Your task to perform on an android device: open sync settings in chrome Image 0: 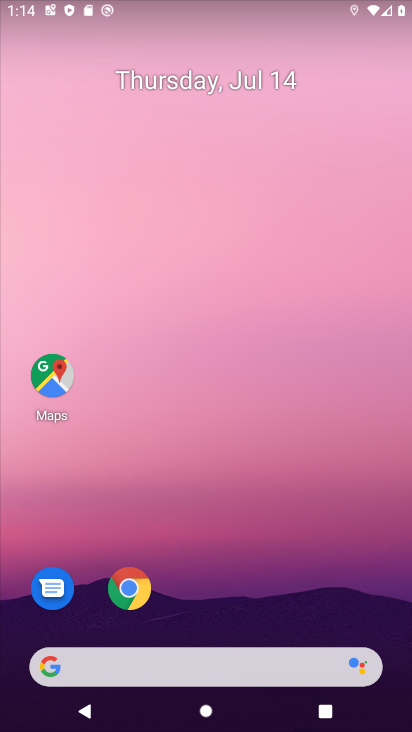
Step 0: drag from (236, 695) to (153, 62)
Your task to perform on an android device: open sync settings in chrome Image 1: 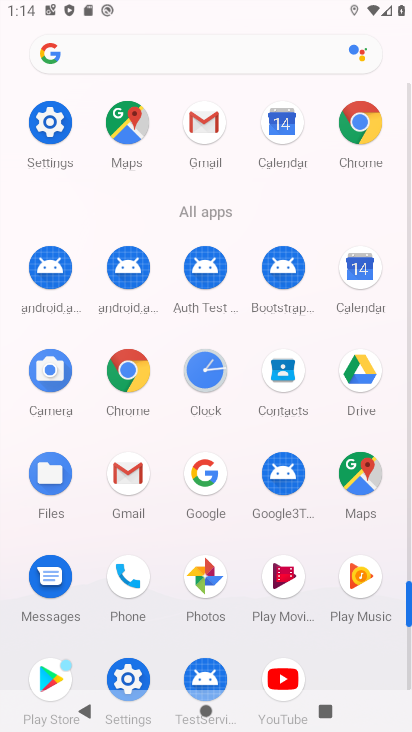
Step 1: click (356, 128)
Your task to perform on an android device: open sync settings in chrome Image 2: 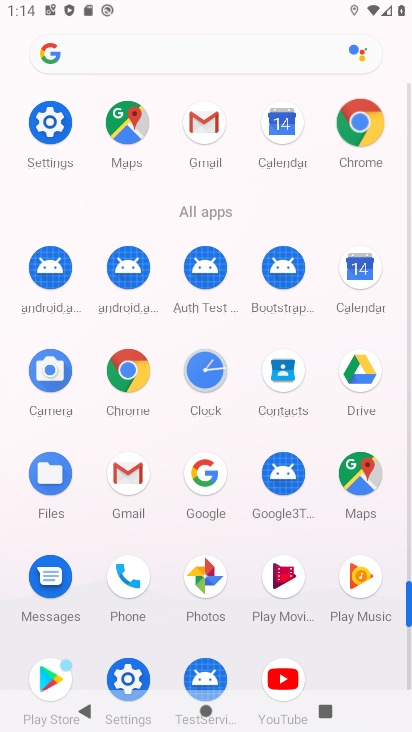
Step 2: click (356, 126)
Your task to perform on an android device: open sync settings in chrome Image 3: 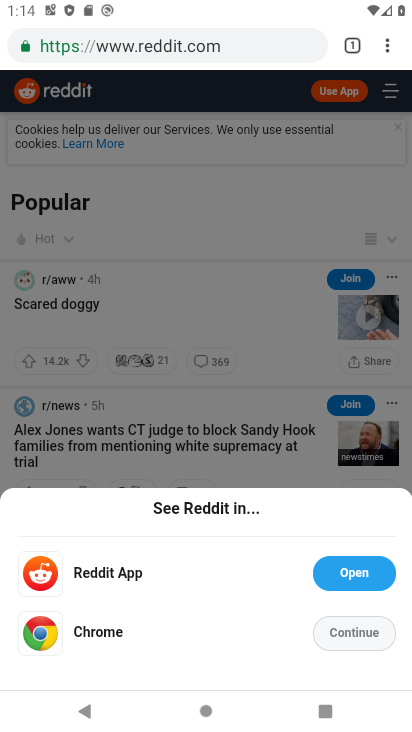
Step 3: click (228, 260)
Your task to perform on an android device: open sync settings in chrome Image 4: 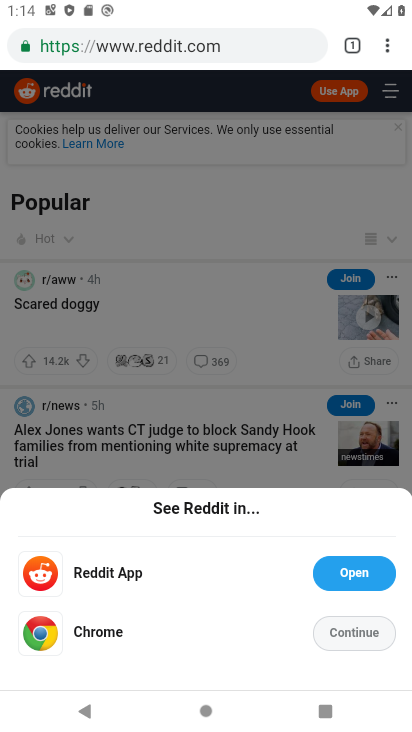
Step 4: click (236, 256)
Your task to perform on an android device: open sync settings in chrome Image 5: 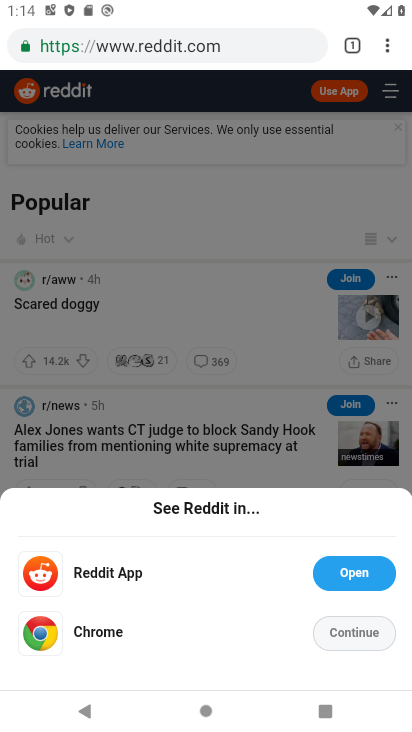
Step 5: press back button
Your task to perform on an android device: open sync settings in chrome Image 6: 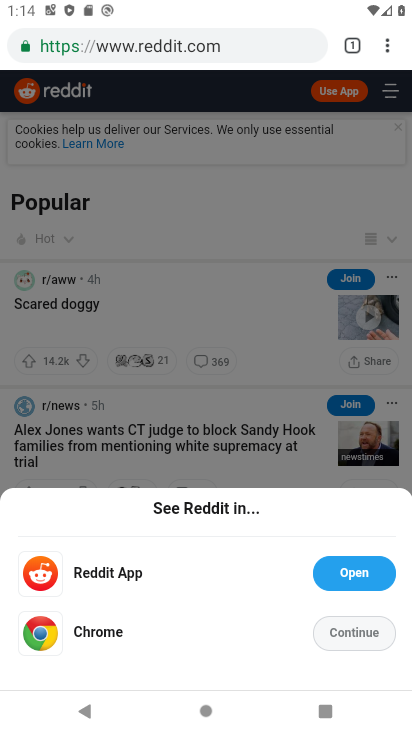
Step 6: press back button
Your task to perform on an android device: open sync settings in chrome Image 7: 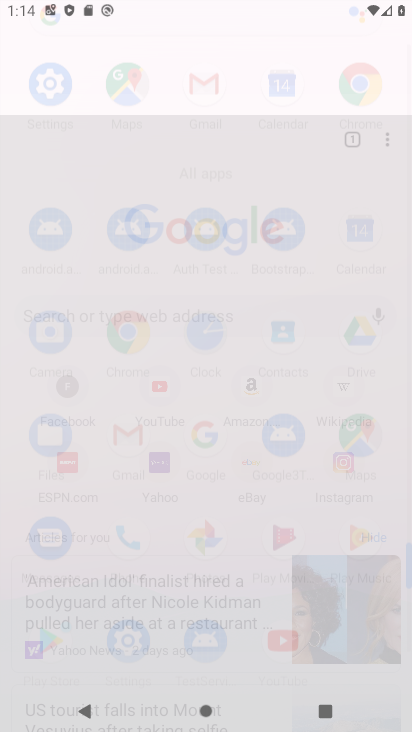
Step 7: press home button
Your task to perform on an android device: open sync settings in chrome Image 8: 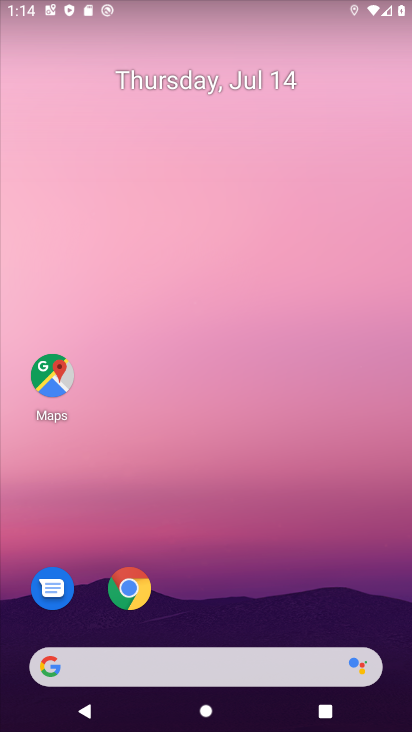
Step 8: drag from (219, 553) to (60, 71)
Your task to perform on an android device: open sync settings in chrome Image 9: 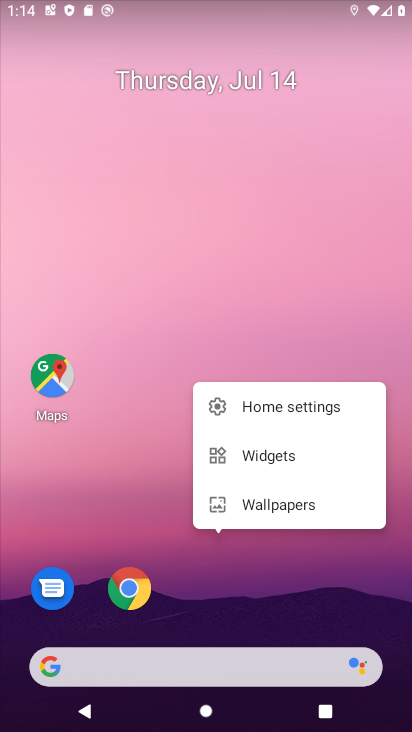
Step 9: drag from (244, 596) to (17, 85)
Your task to perform on an android device: open sync settings in chrome Image 10: 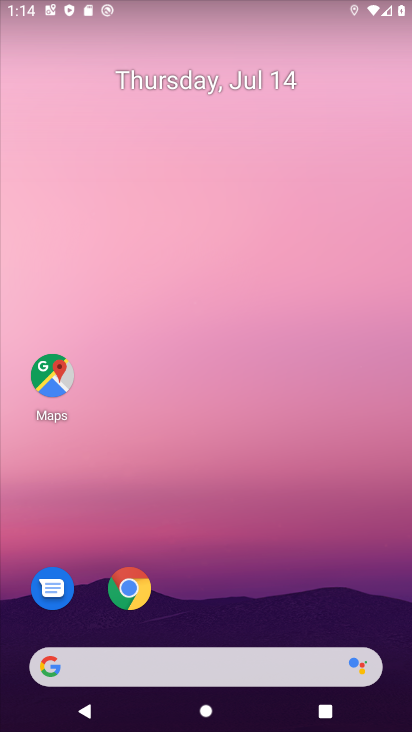
Step 10: drag from (141, 505) to (45, 5)
Your task to perform on an android device: open sync settings in chrome Image 11: 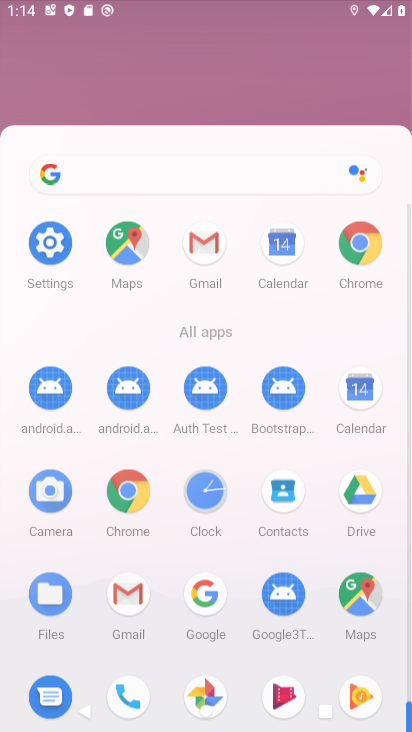
Step 11: drag from (254, 539) to (208, 53)
Your task to perform on an android device: open sync settings in chrome Image 12: 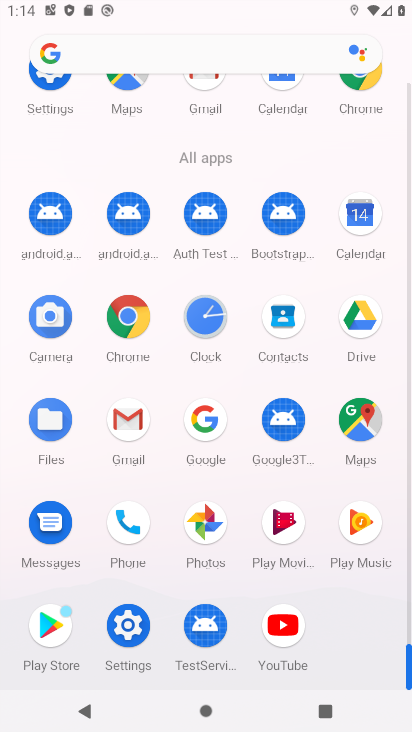
Step 12: click (128, 630)
Your task to perform on an android device: open sync settings in chrome Image 13: 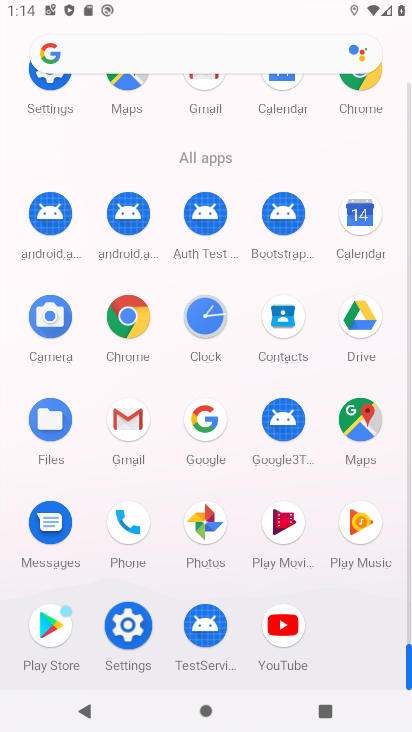
Step 13: click (128, 629)
Your task to perform on an android device: open sync settings in chrome Image 14: 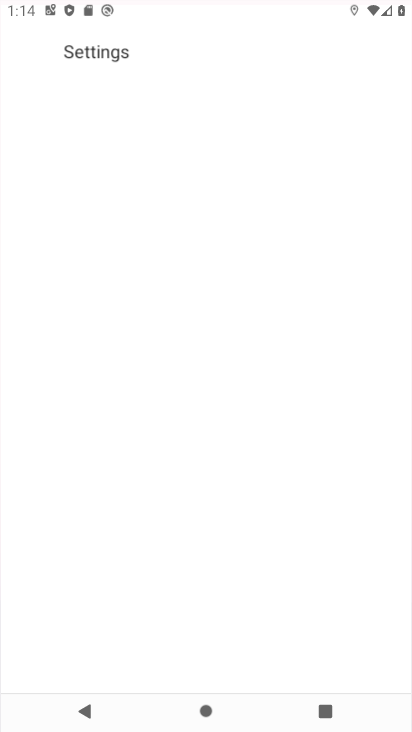
Step 14: click (127, 627)
Your task to perform on an android device: open sync settings in chrome Image 15: 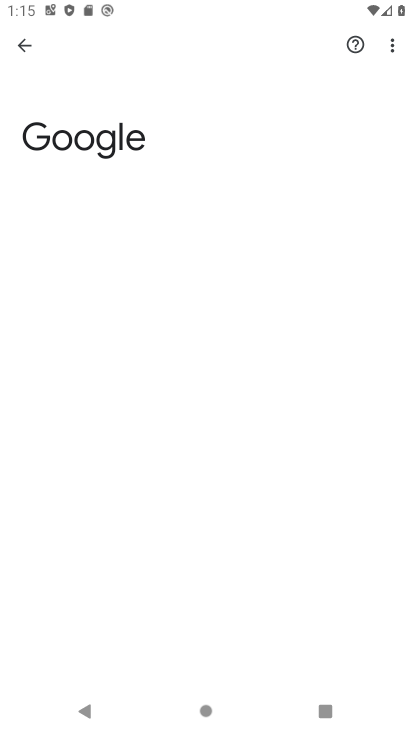
Step 15: press back button
Your task to perform on an android device: open sync settings in chrome Image 16: 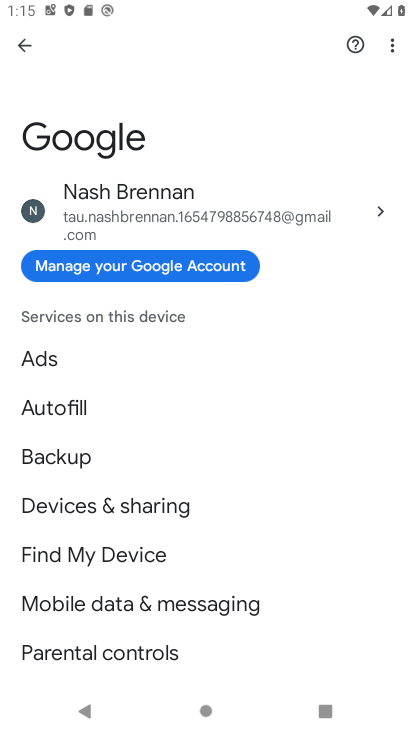
Step 16: press home button
Your task to perform on an android device: open sync settings in chrome Image 17: 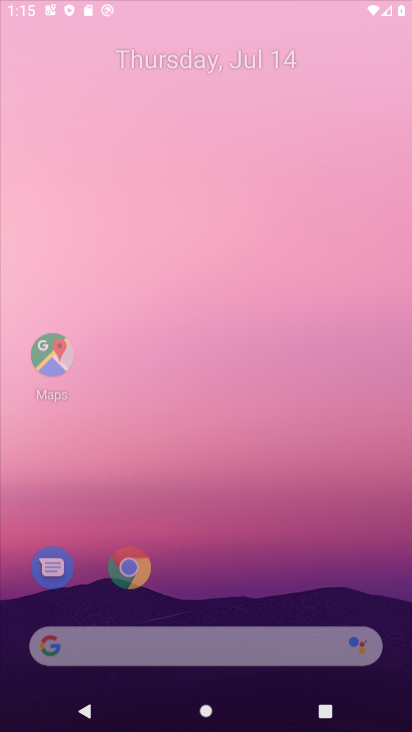
Step 17: click (19, 52)
Your task to perform on an android device: open sync settings in chrome Image 18: 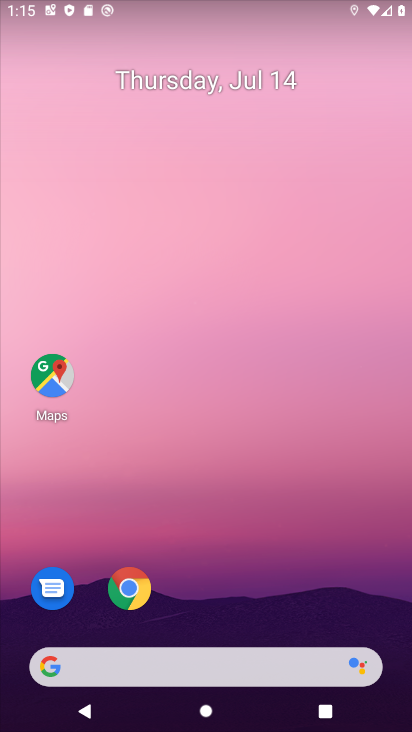
Step 18: drag from (241, 640) to (31, 0)
Your task to perform on an android device: open sync settings in chrome Image 19: 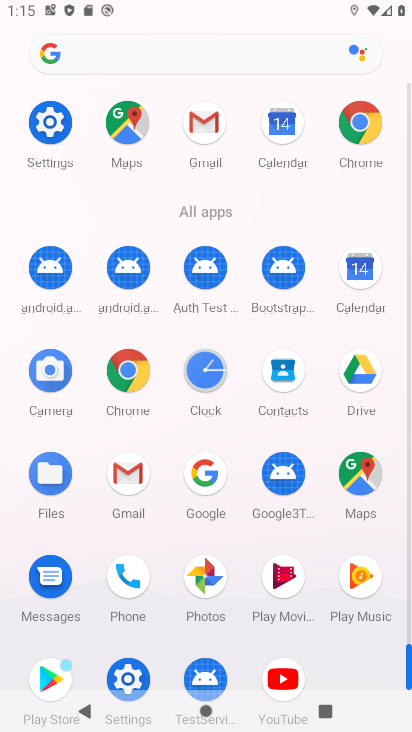
Step 19: click (50, 122)
Your task to perform on an android device: open sync settings in chrome Image 20: 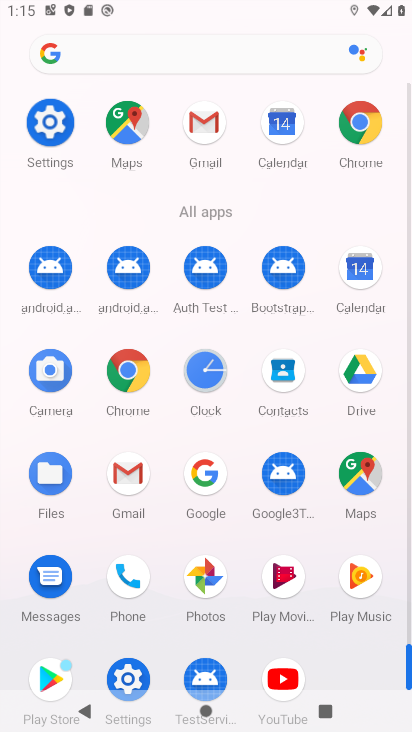
Step 20: click (50, 122)
Your task to perform on an android device: open sync settings in chrome Image 21: 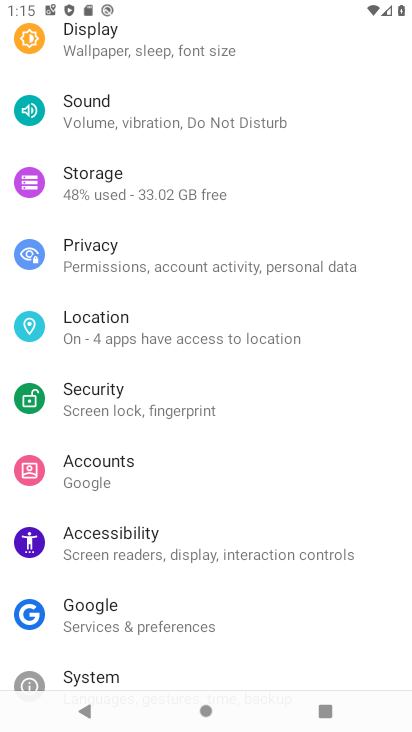
Step 21: press back button
Your task to perform on an android device: open sync settings in chrome Image 22: 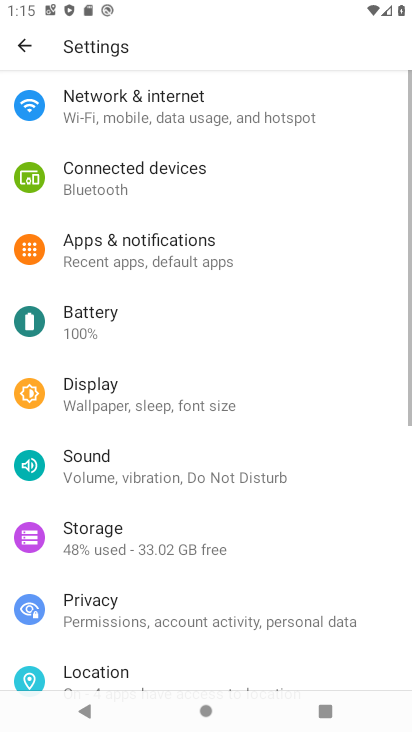
Step 22: press home button
Your task to perform on an android device: open sync settings in chrome Image 23: 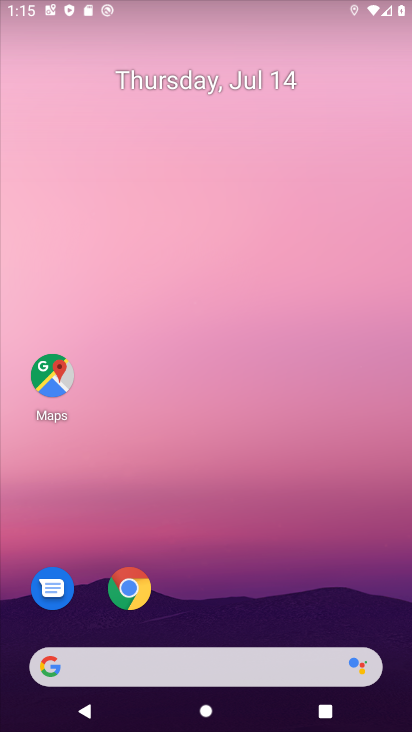
Step 23: drag from (246, 692) to (110, 169)
Your task to perform on an android device: open sync settings in chrome Image 24: 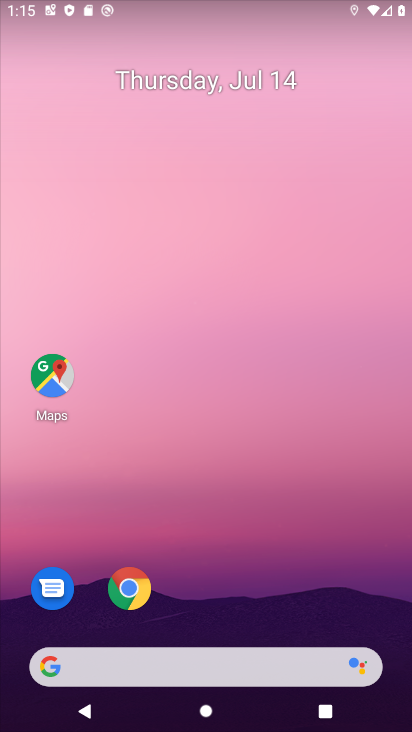
Step 24: drag from (261, 657) to (124, 142)
Your task to perform on an android device: open sync settings in chrome Image 25: 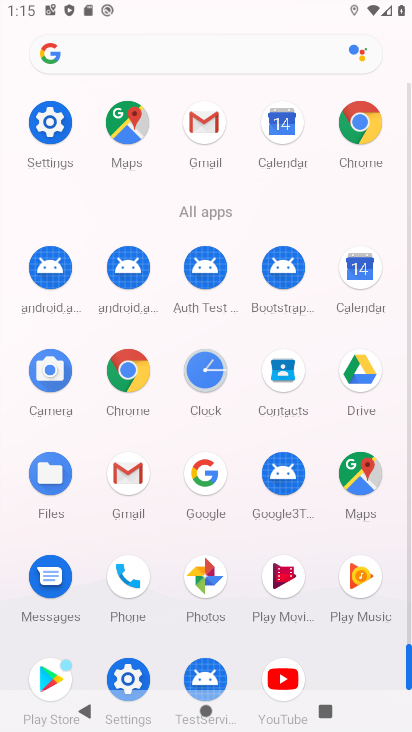
Step 25: click (352, 133)
Your task to perform on an android device: open sync settings in chrome Image 26: 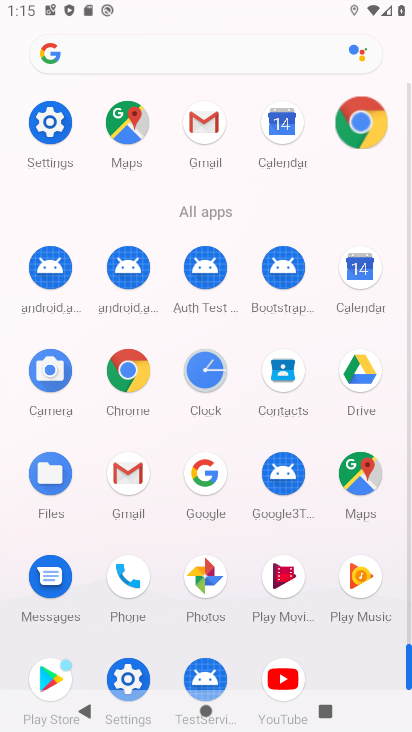
Step 26: click (353, 133)
Your task to perform on an android device: open sync settings in chrome Image 27: 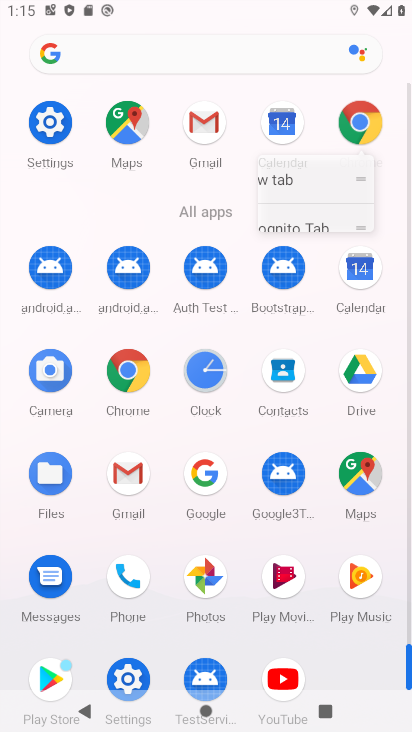
Step 27: click (354, 133)
Your task to perform on an android device: open sync settings in chrome Image 28: 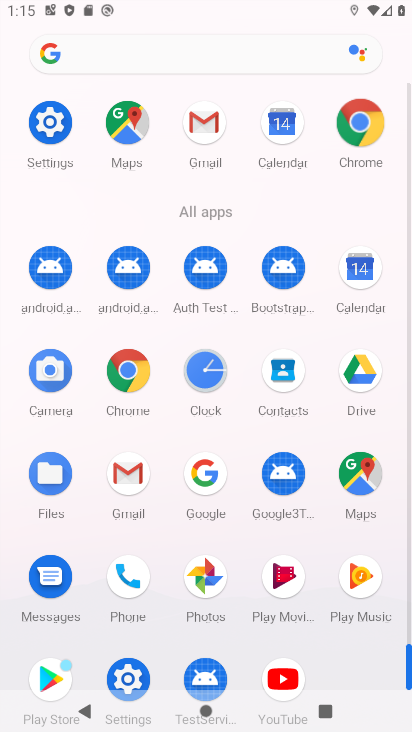
Step 28: click (354, 133)
Your task to perform on an android device: open sync settings in chrome Image 29: 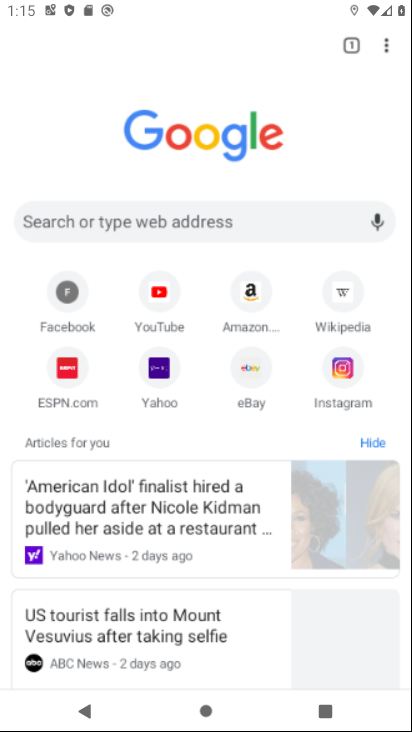
Step 29: click (355, 133)
Your task to perform on an android device: open sync settings in chrome Image 30: 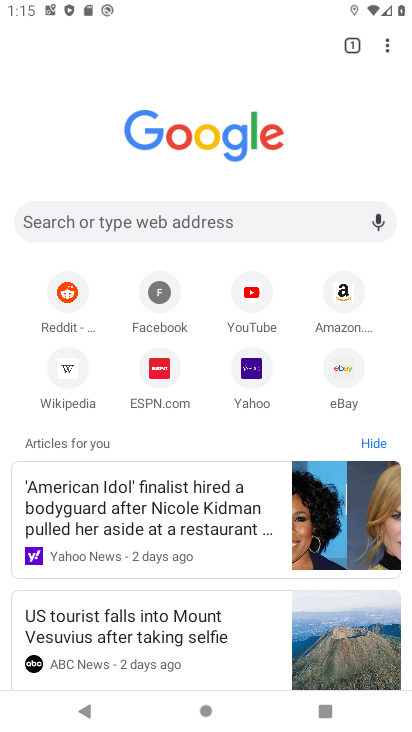
Step 30: drag from (383, 37) to (222, 443)
Your task to perform on an android device: open sync settings in chrome Image 31: 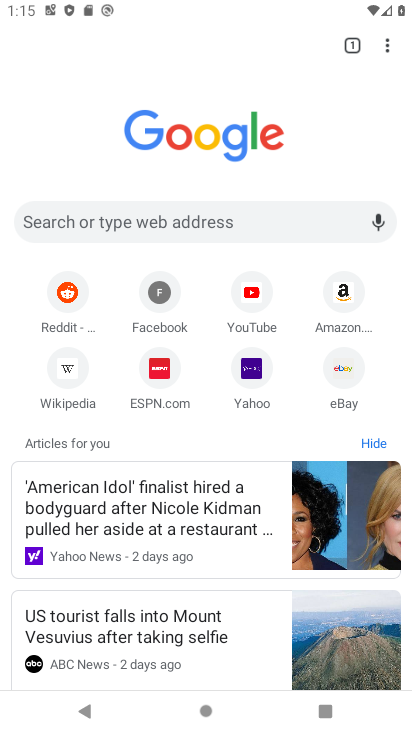
Step 31: click (204, 428)
Your task to perform on an android device: open sync settings in chrome Image 32: 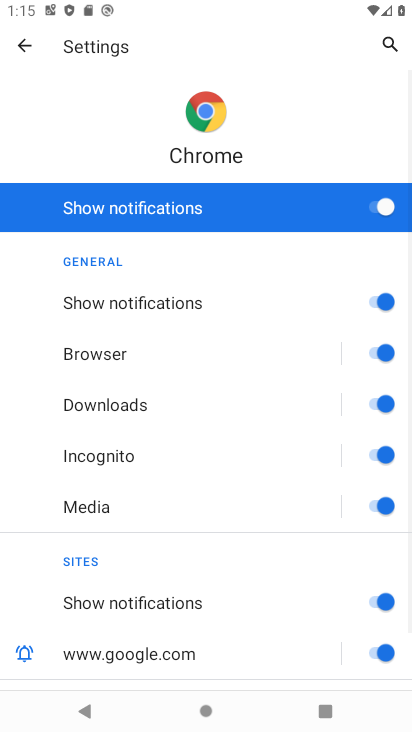
Step 32: click (24, 41)
Your task to perform on an android device: open sync settings in chrome Image 33: 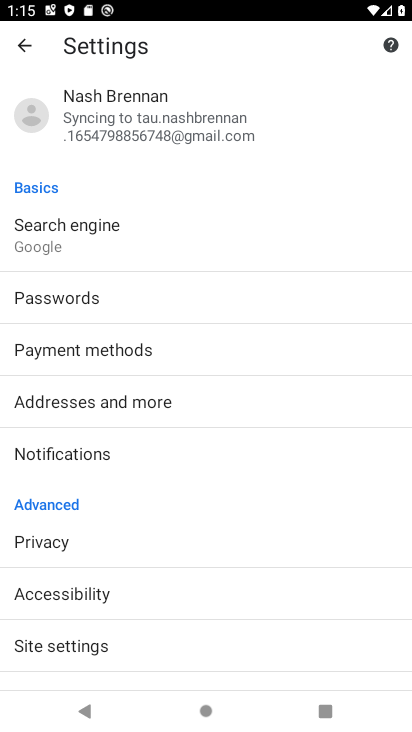
Step 33: click (50, 646)
Your task to perform on an android device: open sync settings in chrome Image 34: 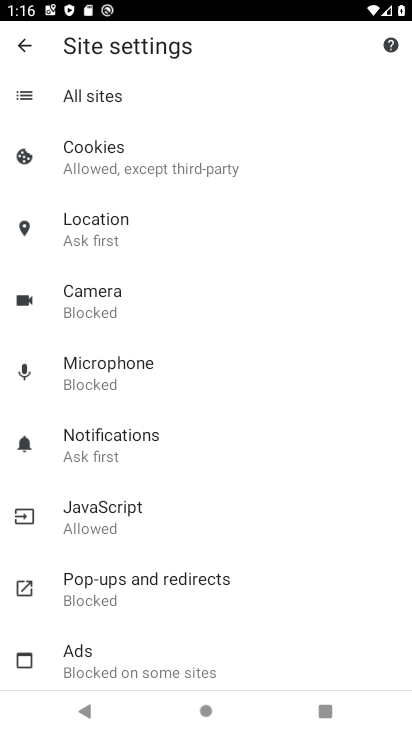
Step 34: drag from (90, 570) to (64, 203)
Your task to perform on an android device: open sync settings in chrome Image 35: 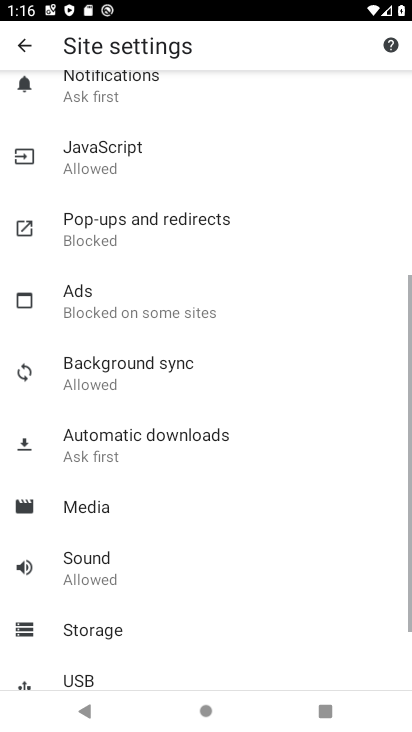
Step 35: drag from (96, 537) to (34, 312)
Your task to perform on an android device: open sync settings in chrome Image 36: 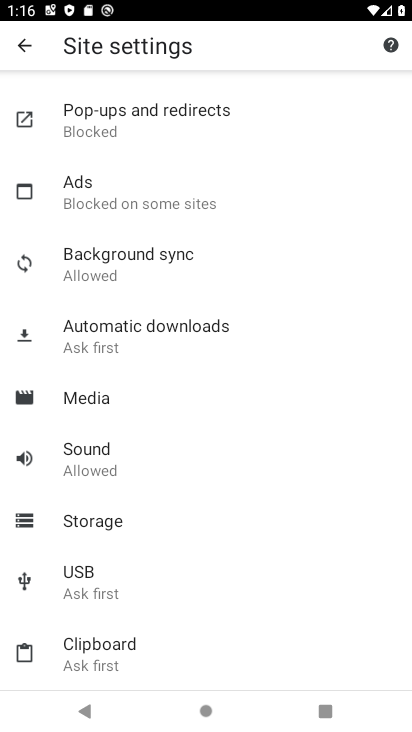
Step 36: click (90, 264)
Your task to perform on an android device: open sync settings in chrome Image 37: 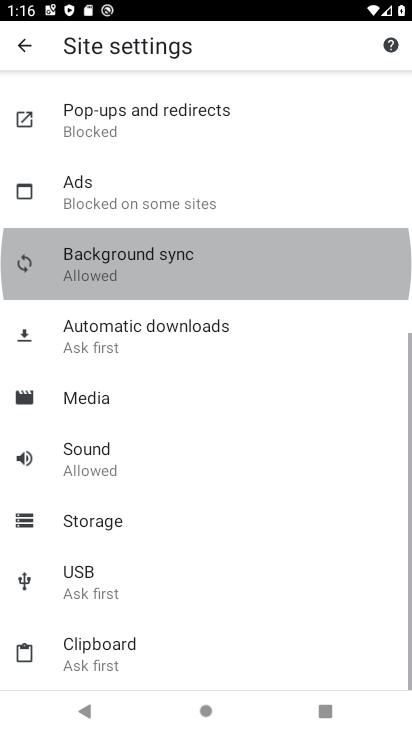
Step 37: click (90, 264)
Your task to perform on an android device: open sync settings in chrome Image 38: 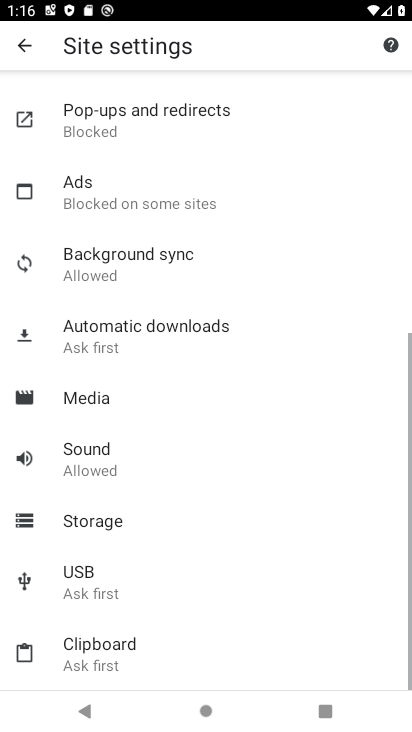
Step 38: click (90, 264)
Your task to perform on an android device: open sync settings in chrome Image 39: 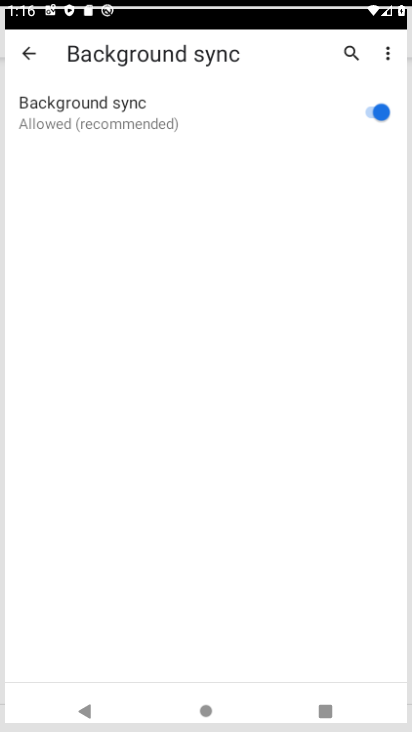
Step 39: click (90, 264)
Your task to perform on an android device: open sync settings in chrome Image 40: 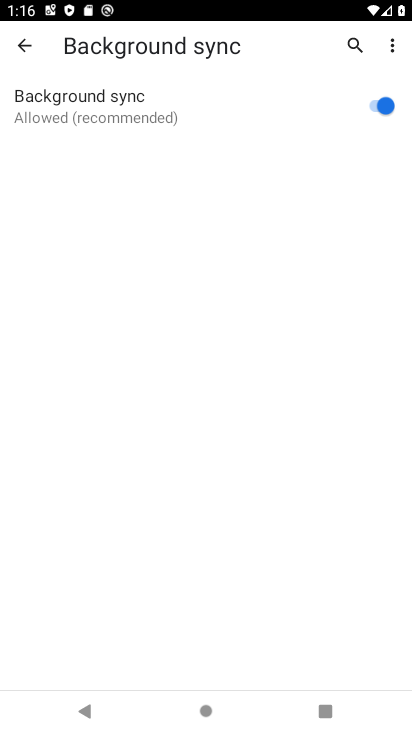
Step 40: task complete